Your task to perform on an android device: Search for sushi restaurants on Maps Image 0: 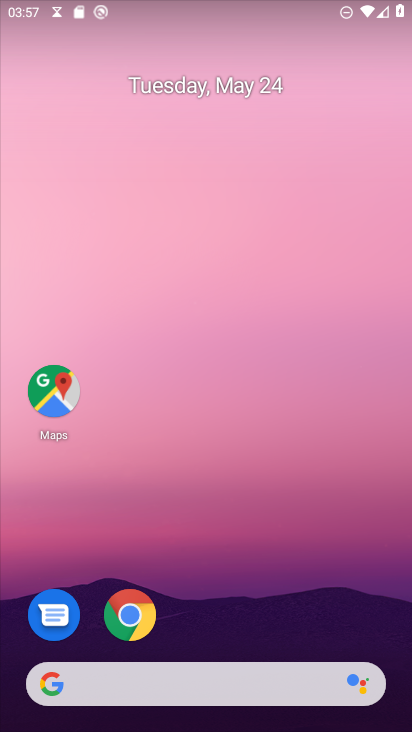
Step 0: drag from (212, 604) to (194, 29)
Your task to perform on an android device: Search for sushi restaurants on Maps Image 1: 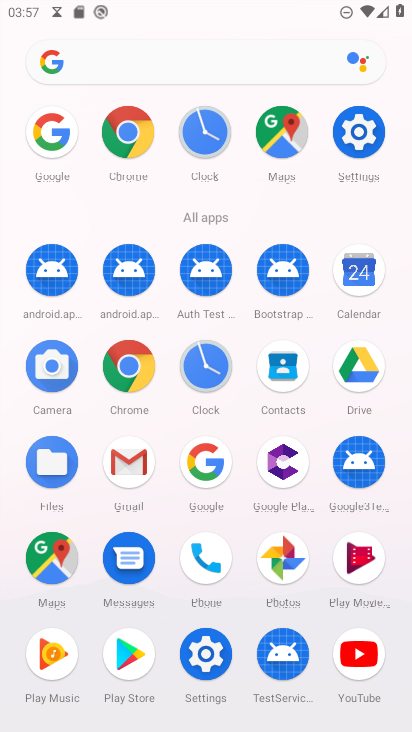
Step 1: drag from (5, 450) to (18, 194)
Your task to perform on an android device: Search for sushi restaurants on Maps Image 2: 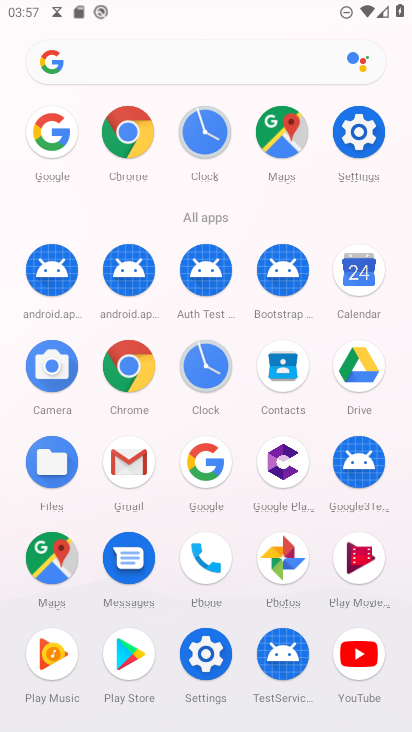
Step 2: click (50, 550)
Your task to perform on an android device: Search for sushi restaurants on Maps Image 3: 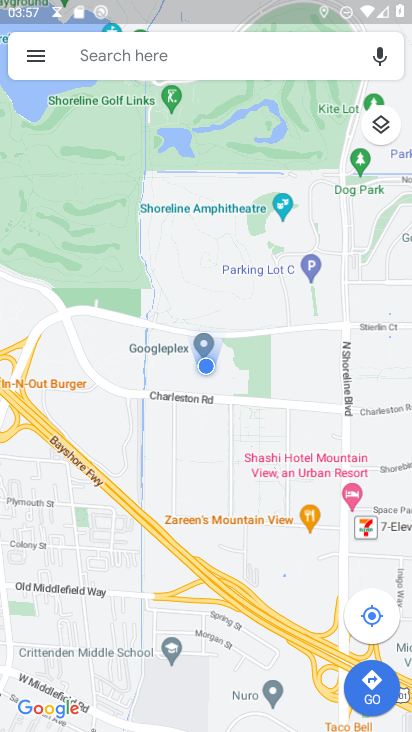
Step 3: click (244, 42)
Your task to perform on an android device: Search for sushi restaurants on Maps Image 4: 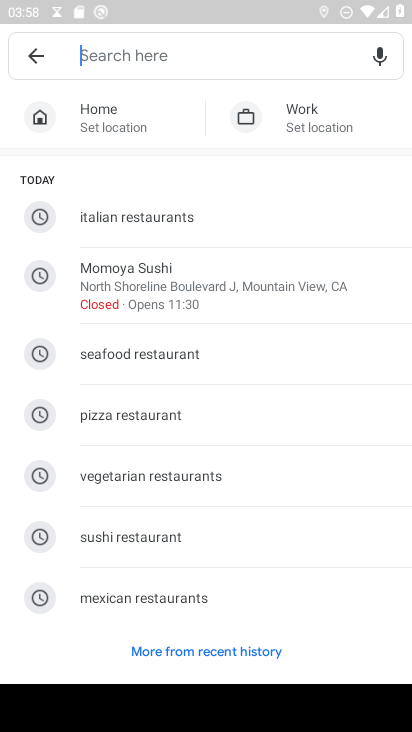
Step 4: click (128, 544)
Your task to perform on an android device: Search for sushi restaurants on Maps Image 5: 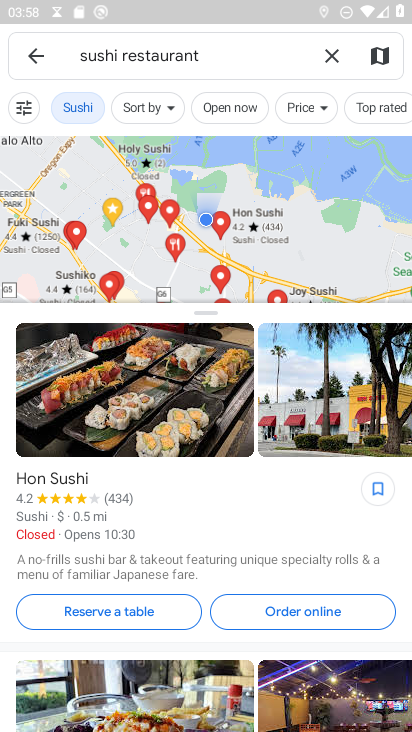
Step 5: task complete